Your task to perform on an android device: Do I have any events tomorrow? Image 0: 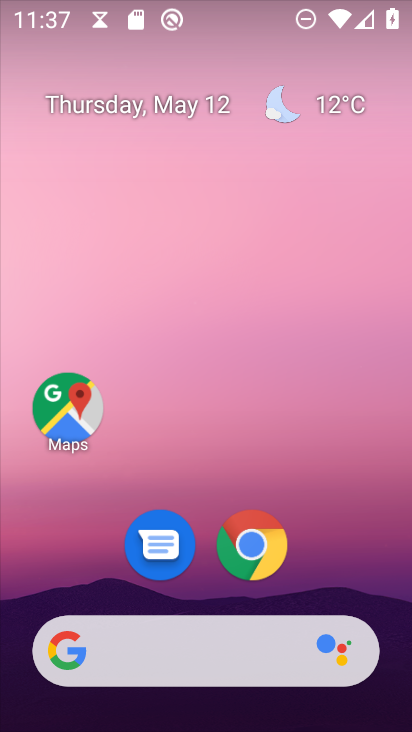
Step 0: press home button
Your task to perform on an android device: Do I have any events tomorrow? Image 1: 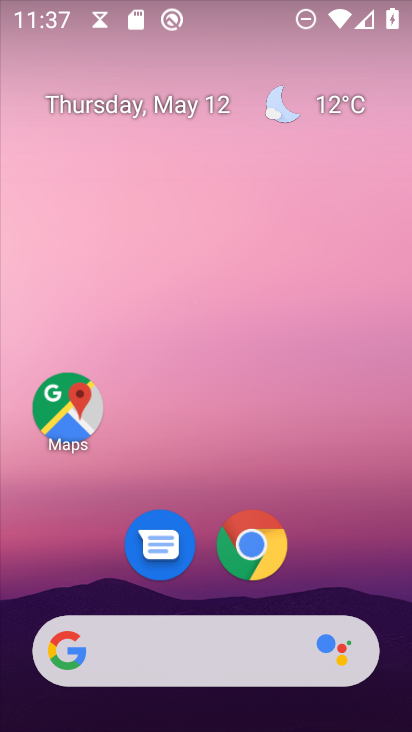
Step 1: drag from (208, 587) to (290, 79)
Your task to perform on an android device: Do I have any events tomorrow? Image 2: 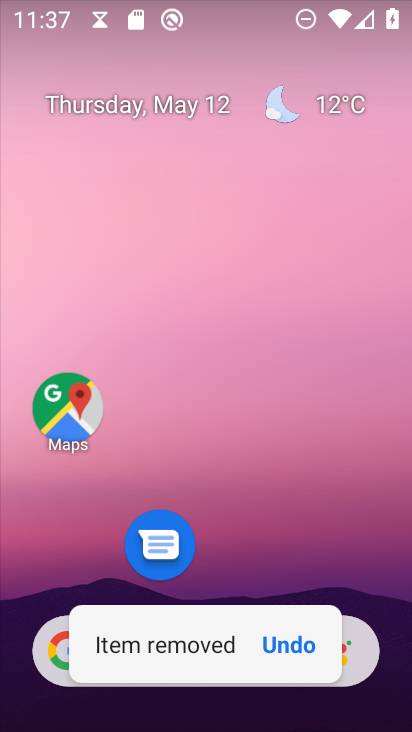
Step 2: click (271, 645)
Your task to perform on an android device: Do I have any events tomorrow? Image 3: 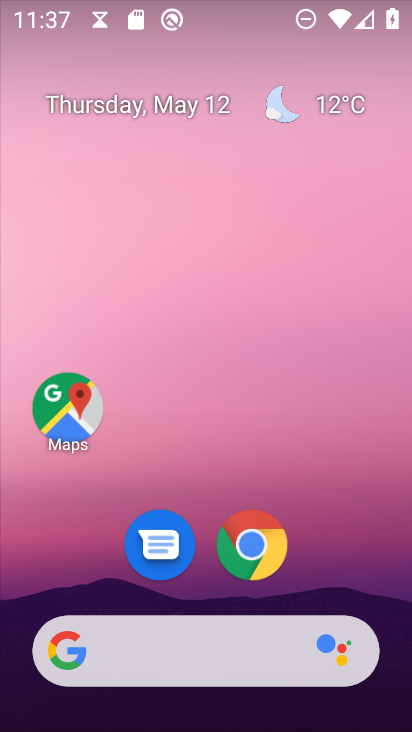
Step 3: drag from (157, 543) to (226, 70)
Your task to perform on an android device: Do I have any events tomorrow? Image 4: 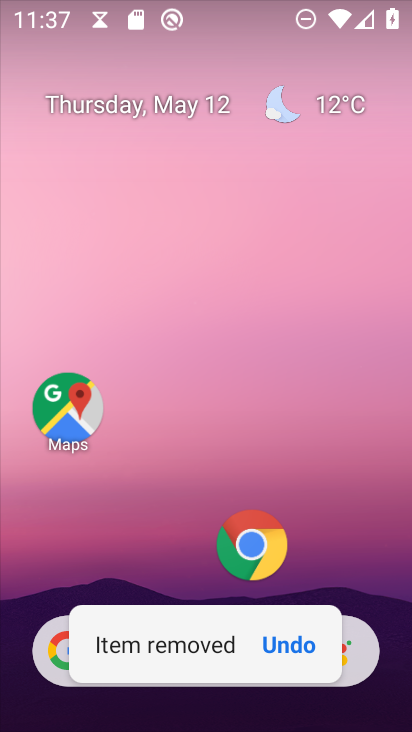
Step 4: drag from (329, 567) to (341, 113)
Your task to perform on an android device: Do I have any events tomorrow? Image 5: 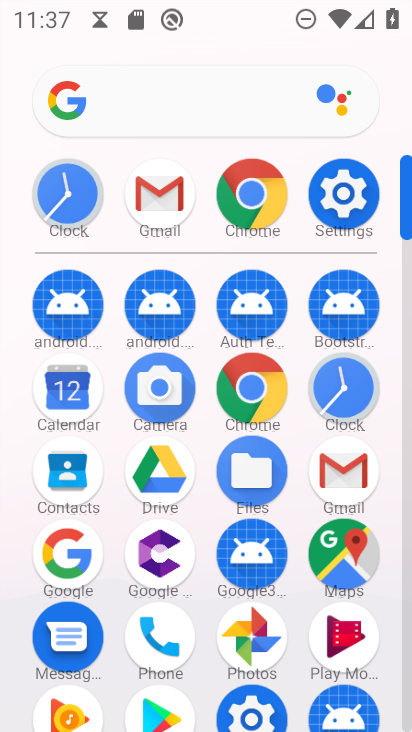
Step 5: click (66, 392)
Your task to perform on an android device: Do I have any events tomorrow? Image 6: 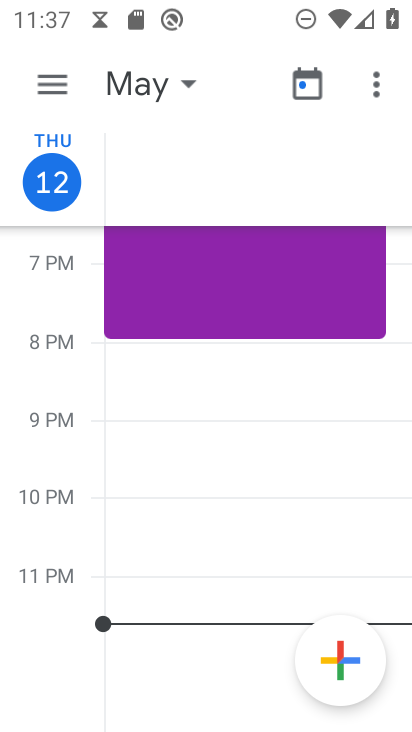
Step 6: click (94, 192)
Your task to perform on an android device: Do I have any events tomorrow? Image 7: 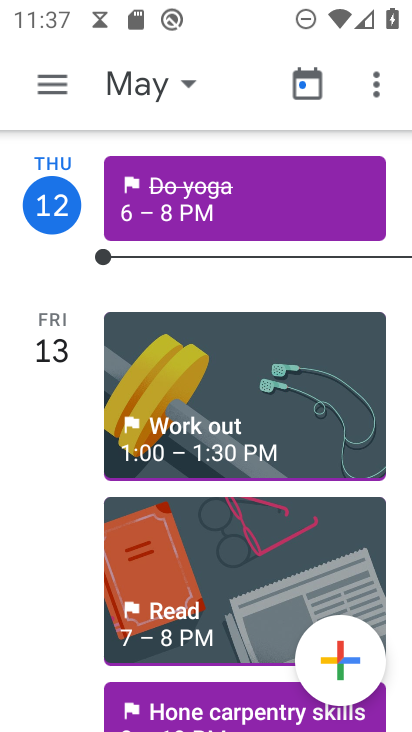
Step 7: click (75, 383)
Your task to perform on an android device: Do I have any events tomorrow? Image 8: 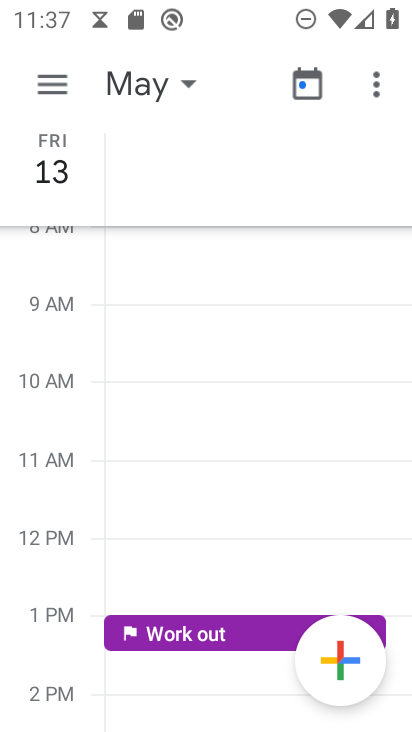
Step 8: task complete